Your task to perform on an android device: Find coffee shops on Maps Image 0: 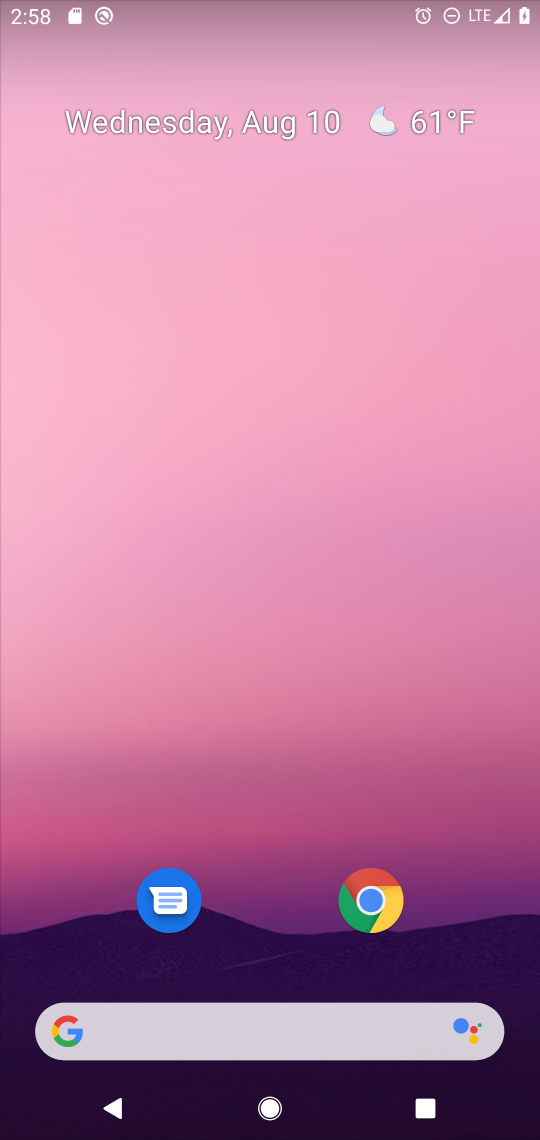
Step 0: drag from (265, 880) to (376, 37)
Your task to perform on an android device: Find coffee shops on Maps Image 1: 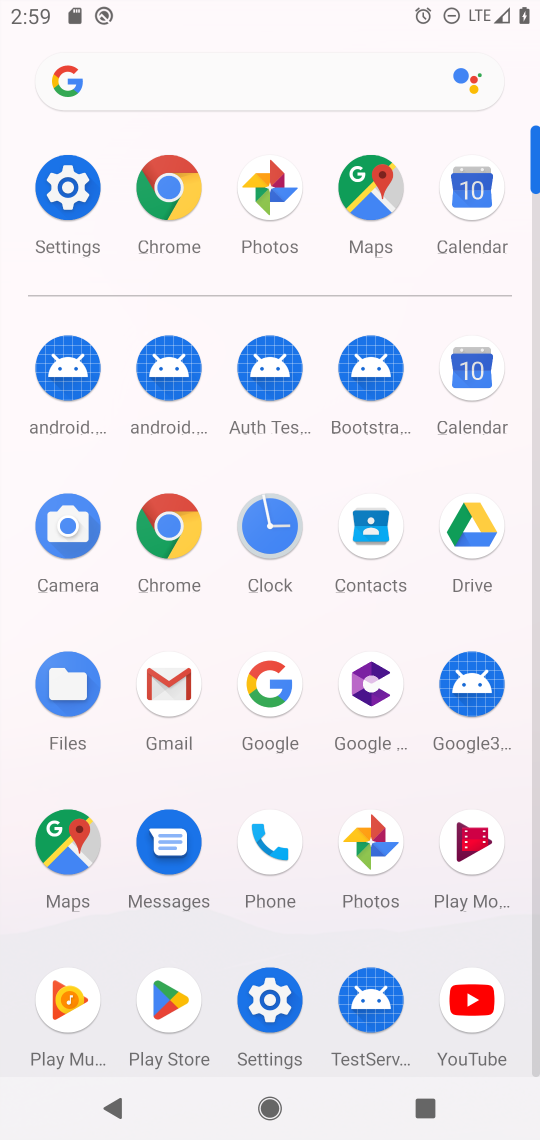
Step 1: click (375, 195)
Your task to perform on an android device: Find coffee shops on Maps Image 2: 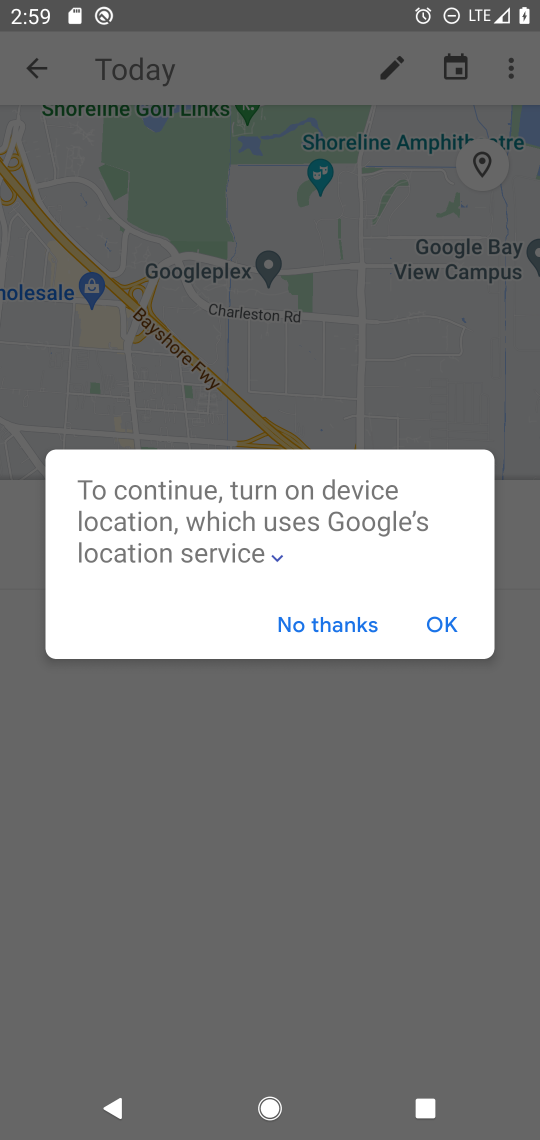
Step 2: click (41, 66)
Your task to perform on an android device: Find coffee shops on Maps Image 3: 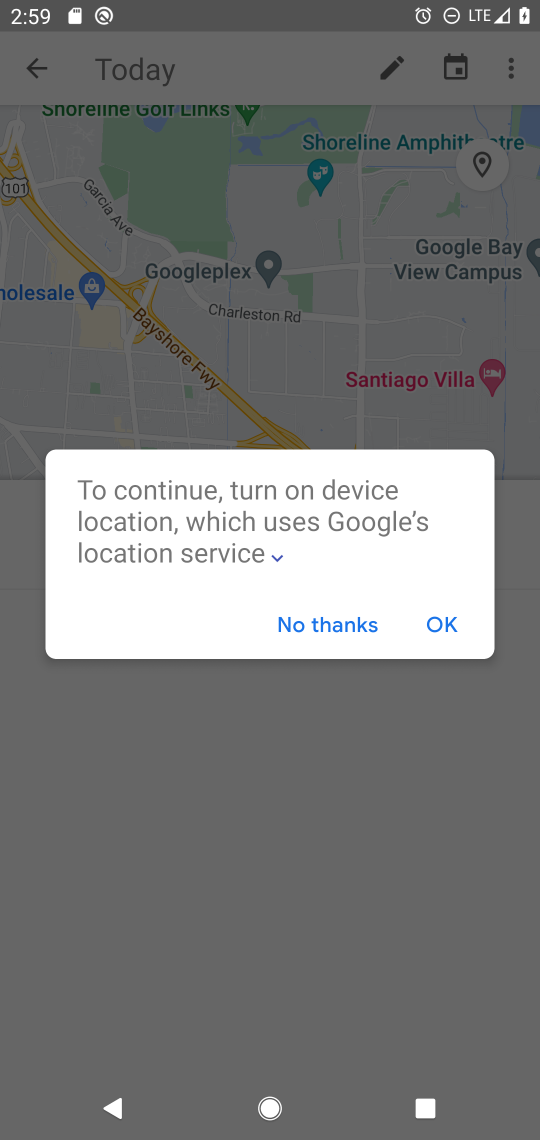
Step 3: click (450, 617)
Your task to perform on an android device: Find coffee shops on Maps Image 4: 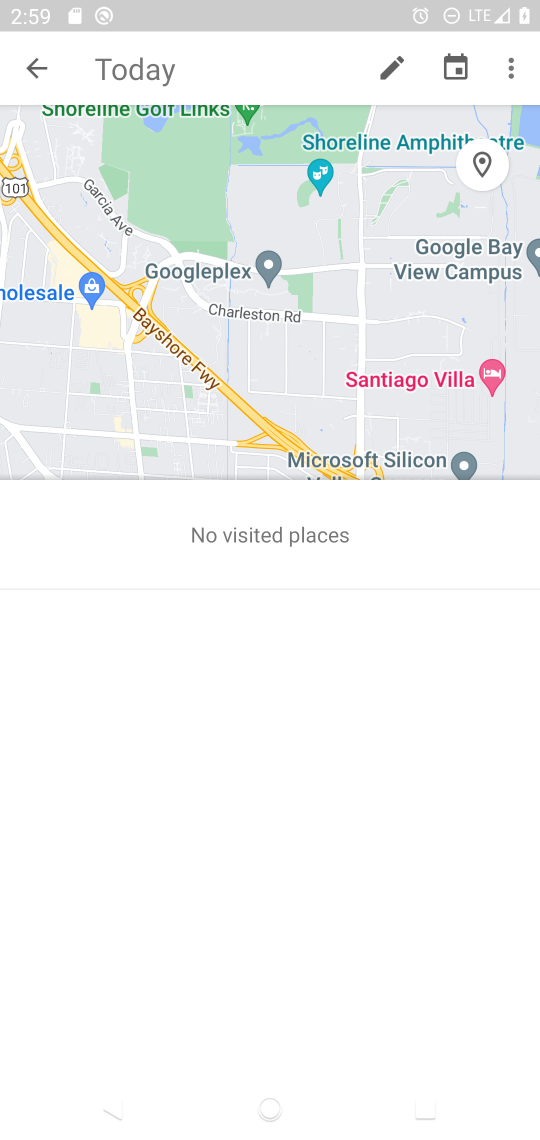
Step 4: click (44, 64)
Your task to perform on an android device: Find coffee shops on Maps Image 5: 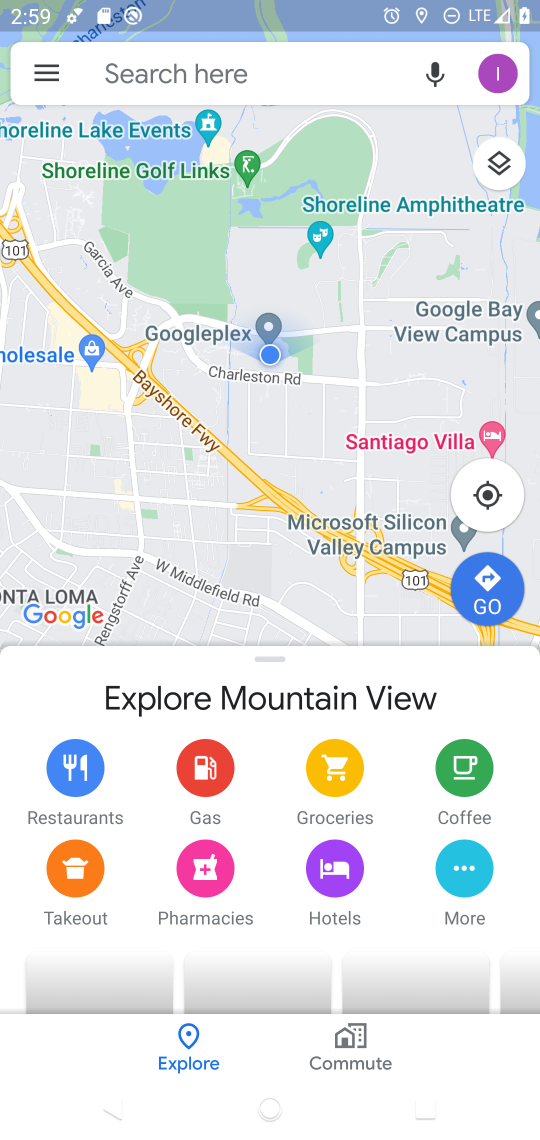
Step 5: click (251, 77)
Your task to perform on an android device: Find coffee shops on Maps Image 6: 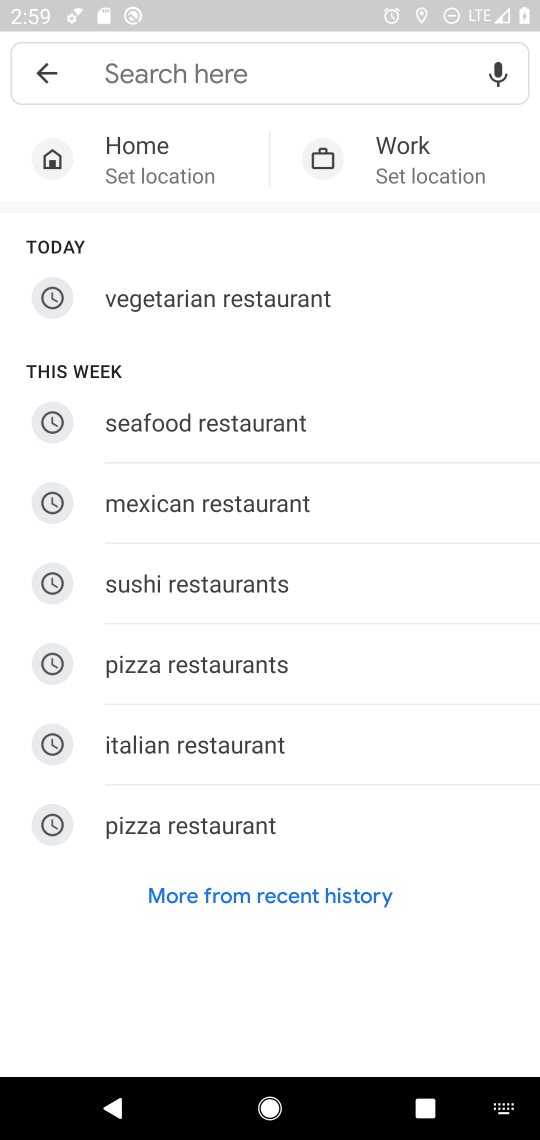
Step 6: type "coffee"
Your task to perform on an android device: Find coffee shops on Maps Image 7: 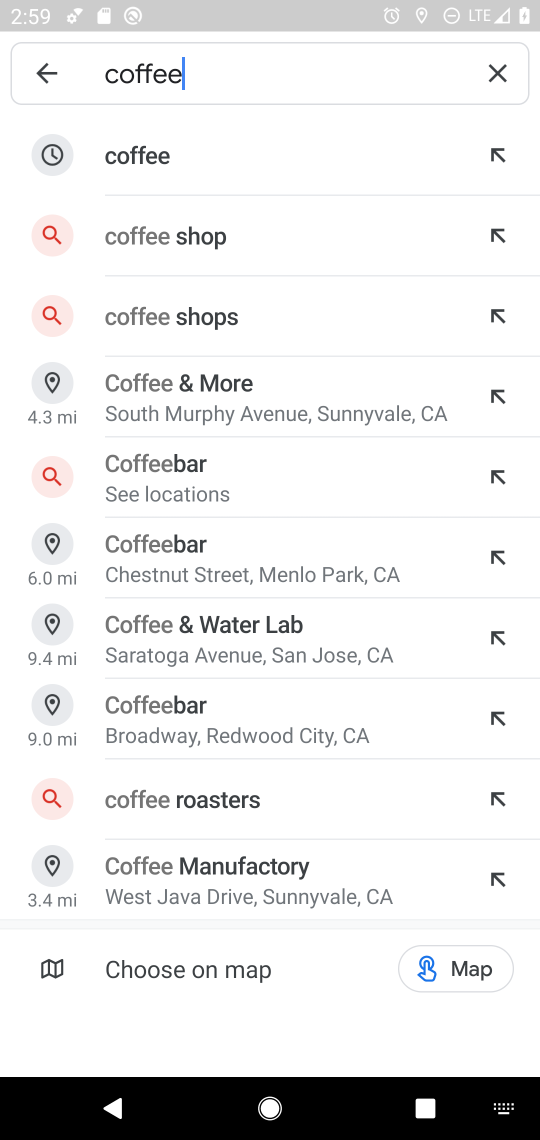
Step 7: click (228, 231)
Your task to perform on an android device: Find coffee shops on Maps Image 8: 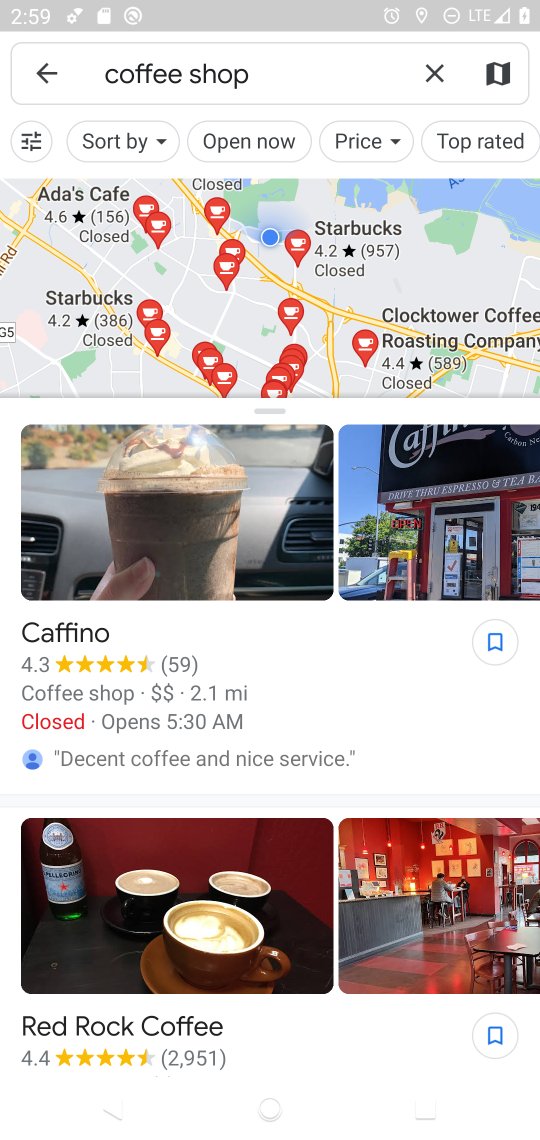
Step 8: task complete